Your task to perform on an android device: toggle notifications settings in the gmail app Image 0: 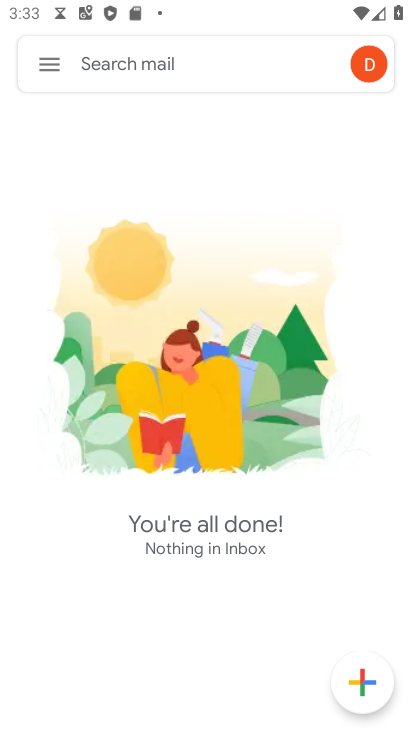
Step 0: press home button
Your task to perform on an android device: toggle notifications settings in the gmail app Image 1: 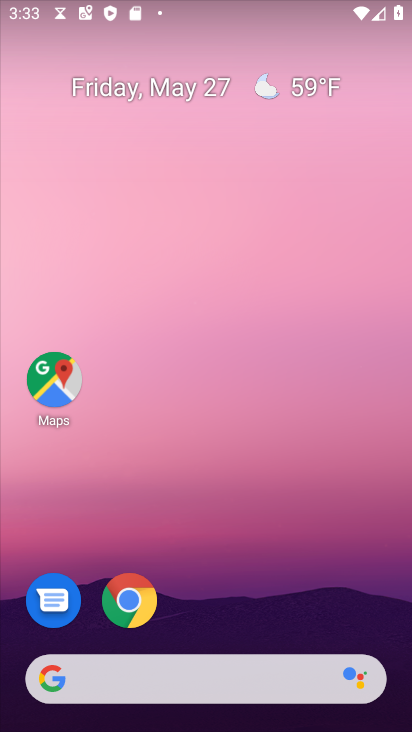
Step 1: drag from (236, 609) to (194, 102)
Your task to perform on an android device: toggle notifications settings in the gmail app Image 2: 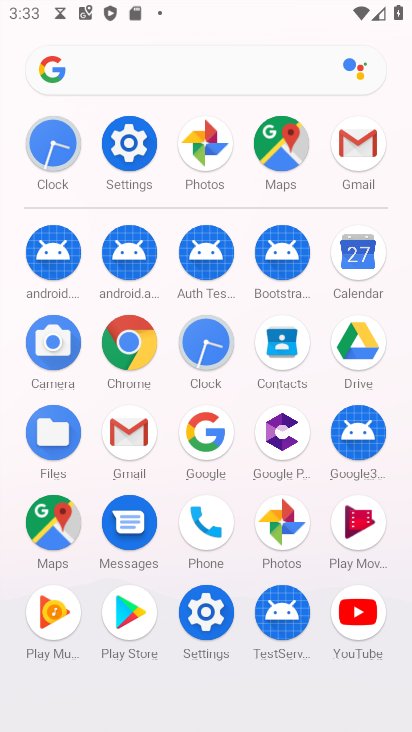
Step 2: click (359, 140)
Your task to perform on an android device: toggle notifications settings in the gmail app Image 3: 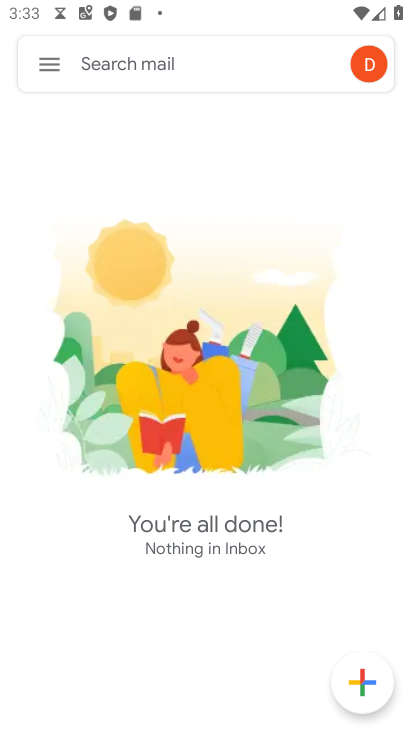
Step 3: click (52, 63)
Your task to perform on an android device: toggle notifications settings in the gmail app Image 4: 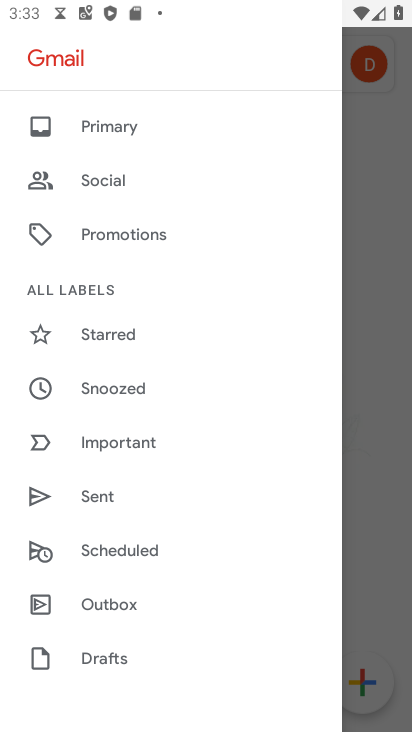
Step 4: drag from (136, 483) to (138, 347)
Your task to perform on an android device: toggle notifications settings in the gmail app Image 5: 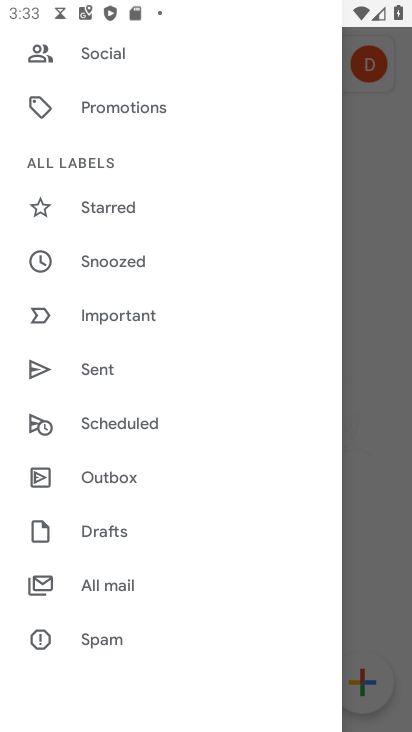
Step 5: drag from (121, 485) to (91, 329)
Your task to perform on an android device: toggle notifications settings in the gmail app Image 6: 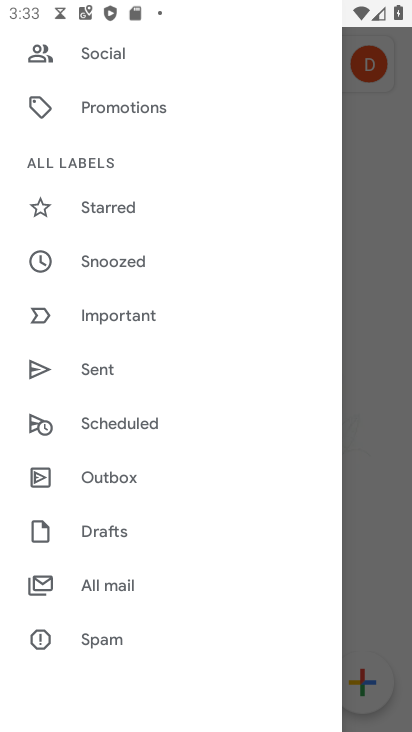
Step 6: drag from (146, 610) to (152, 471)
Your task to perform on an android device: toggle notifications settings in the gmail app Image 7: 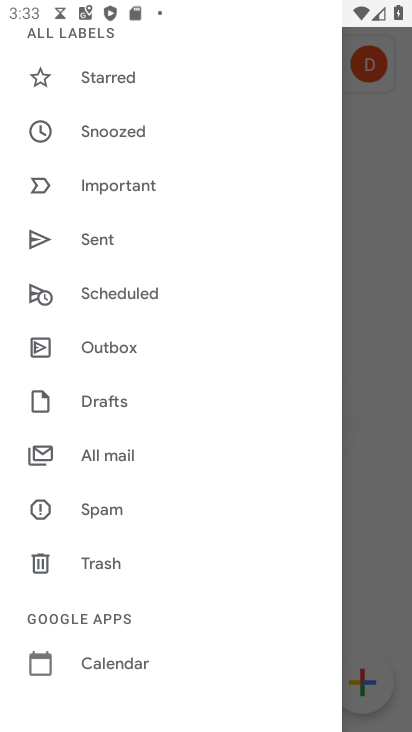
Step 7: drag from (151, 623) to (200, 504)
Your task to perform on an android device: toggle notifications settings in the gmail app Image 8: 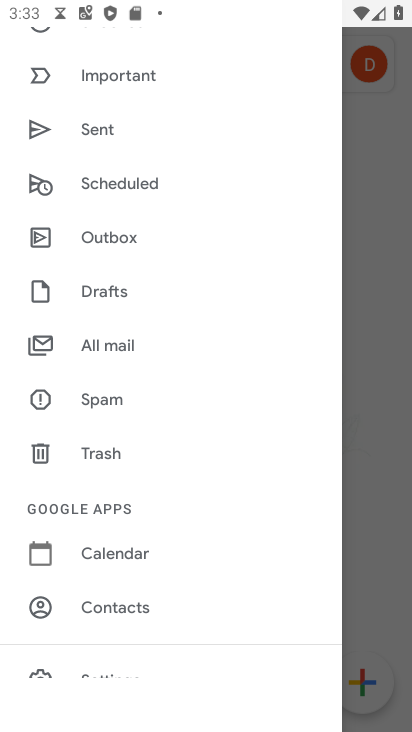
Step 8: drag from (158, 577) to (209, 461)
Your task to perform on an android device: toggle notifications settings in the gmail app Image 9: 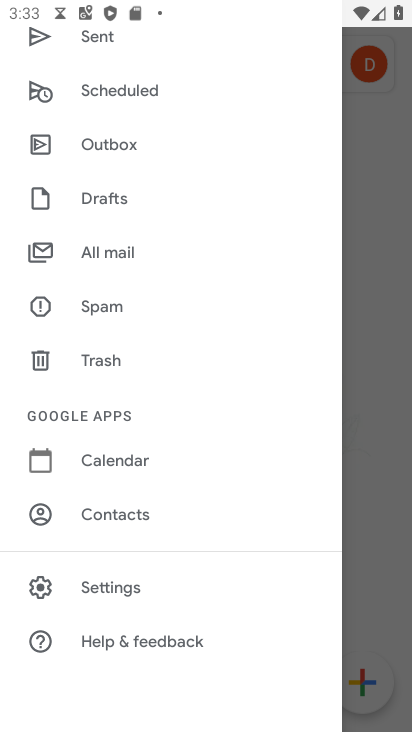
Step 9: click (122, 590)
Your task to perform on an android device: toggle notifications settings in the gmail app Image 10: 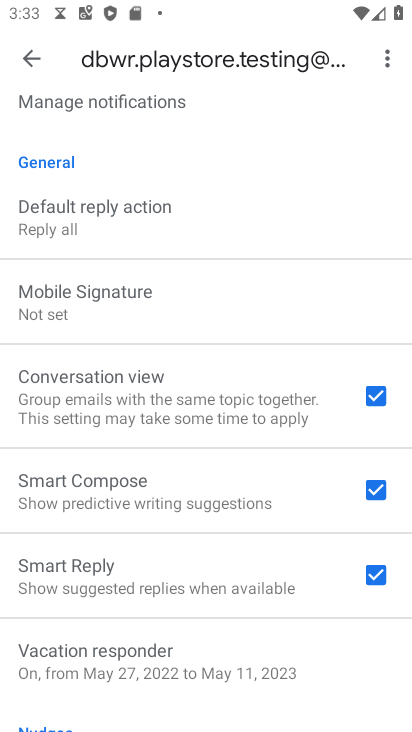
Step 10: drag from (198, 190) to (181, 357)
Your task to perform on an android device: toggle notifications settings in the gmail app Image 11: 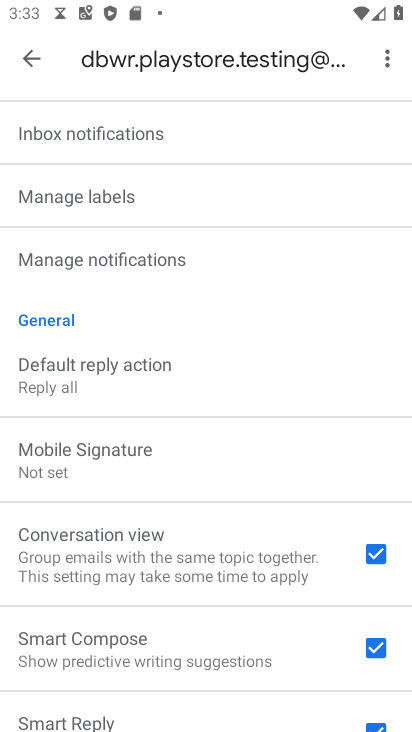
Step 11: click (176, 256)
Your task to perform on an android device: toggle notifications settings in the gmail app Image 12: 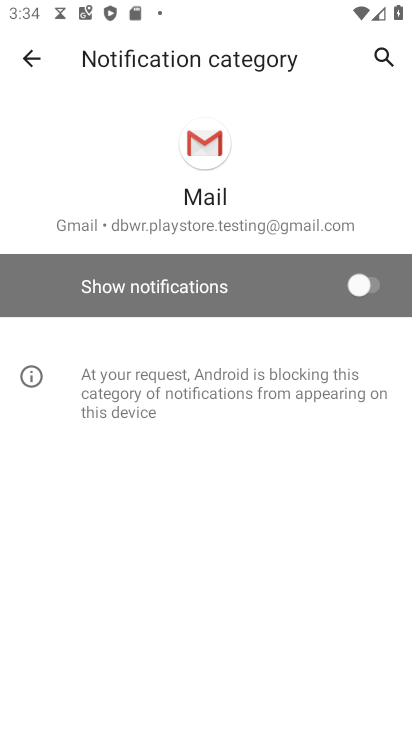
Step 12: click (366, 281)
Your task to perform on an android device: toggle notifications settings in the gmail app Image 13: 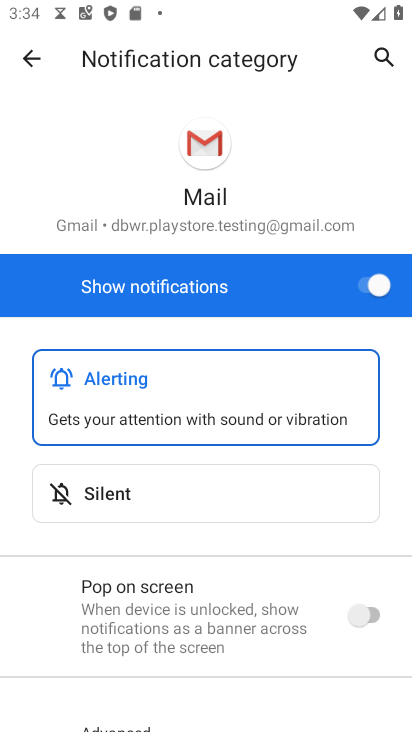
Step 13: task complete